Your task to perform on an android device: Open Android settings Image 0: 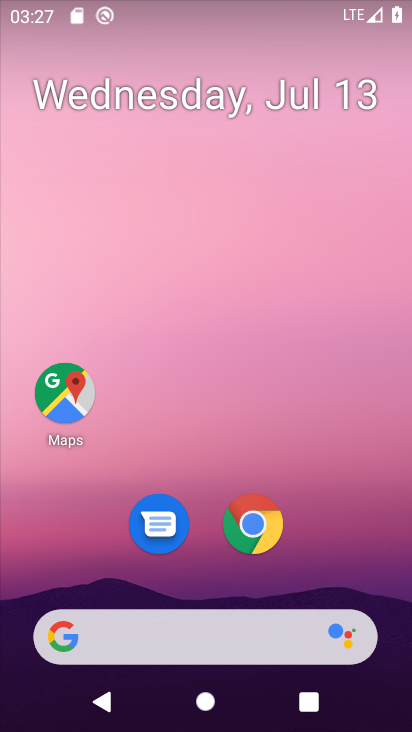
Step 0: drag from (327, 540) to (322, 91)
Your task to perform on an android device: Open Android settings Image 1: 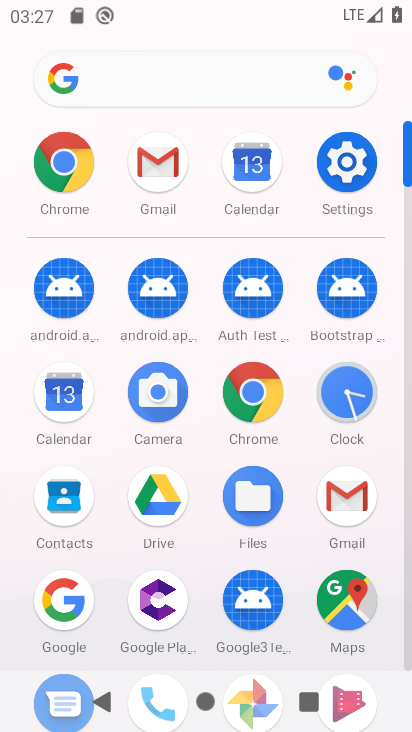
Step 1: click (344, 165)
Your task to perform on an android device: Open Android settings Image 2: 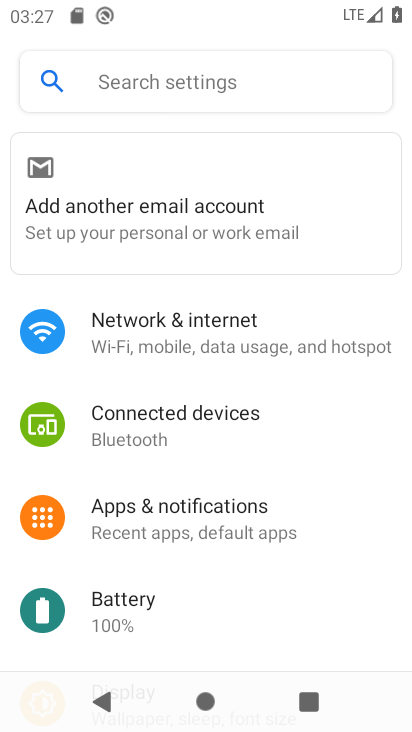
Step 2: drag from (268, 607) to (280, 80)
Your task to perform on an android device: Open Android settings Image 3: 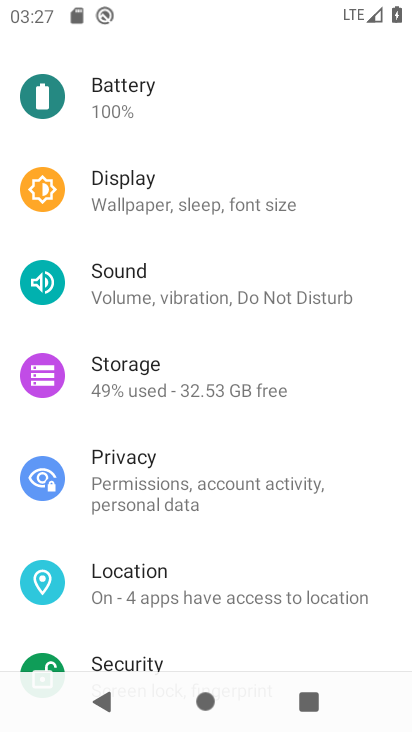
Step 3: drag from (252, 507) to (274, 60)
Your task to perform on an android device: Open Android settings Image 4: 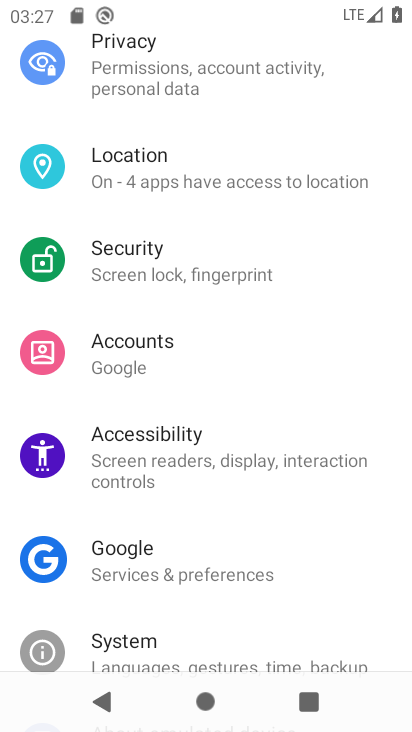
Step 4: drag from (247, 373) to (255, 97)
Your task to perform on an android device: Open Android settings Image 5: 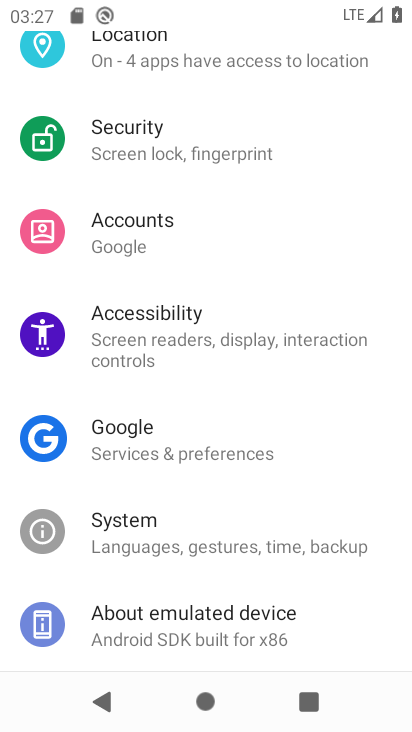
Step 5: click (214, 619)
Your task to perform on an android device: Open Android settings Image 6: 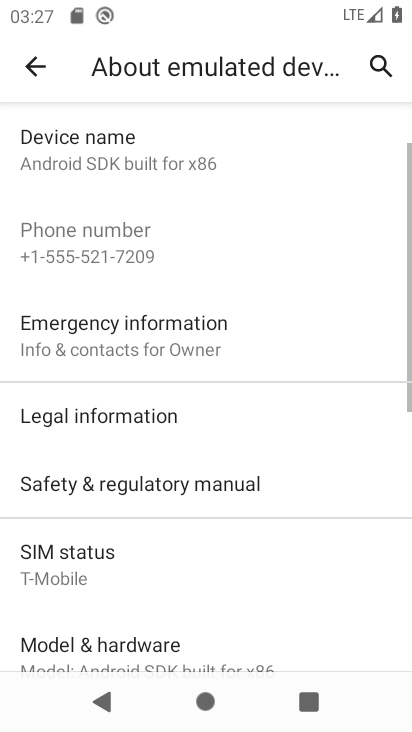
Step 6: task complete